Your task to perform on an android device: turn vacation reply on in the gmail app Image 0: 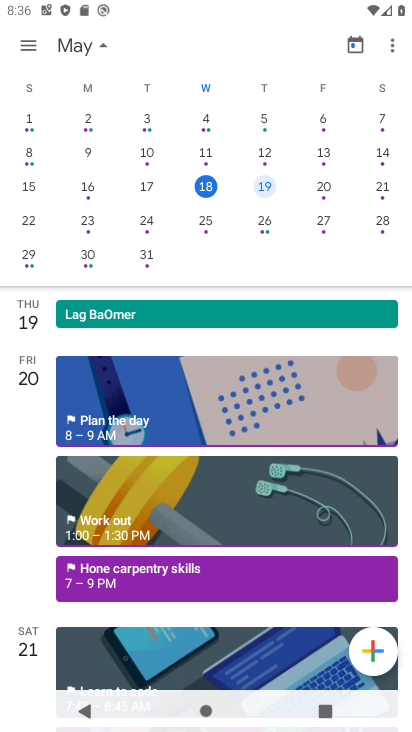
Step 0: press home button
Your task to perform on an android device: turn vacation reply on in the gmail app Image 1: 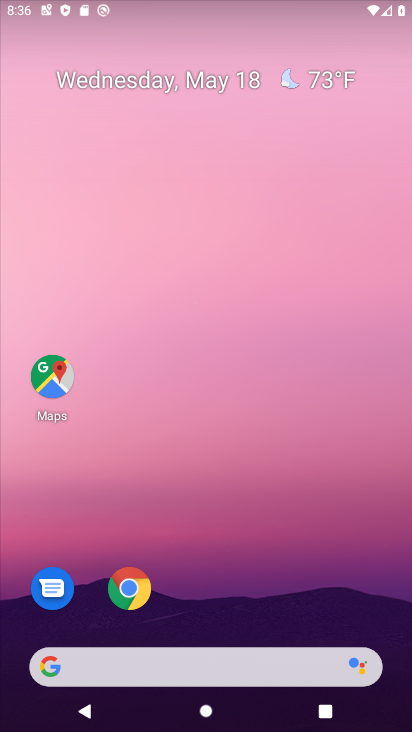
Step 1: drag from (382, 588) to (355, 200)
Your task to perform on an android device: turn vacation reply on in the gmail app Image 2: 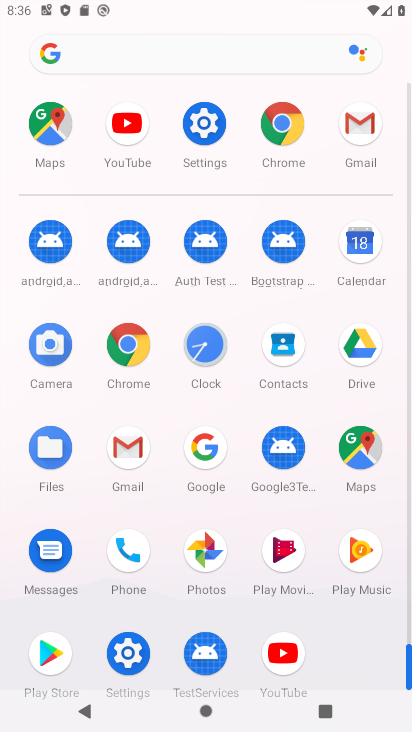
Step 2: click (125, 447)
Your task to perform on an android device: turn vacation reply on in the gmail app Image 3: 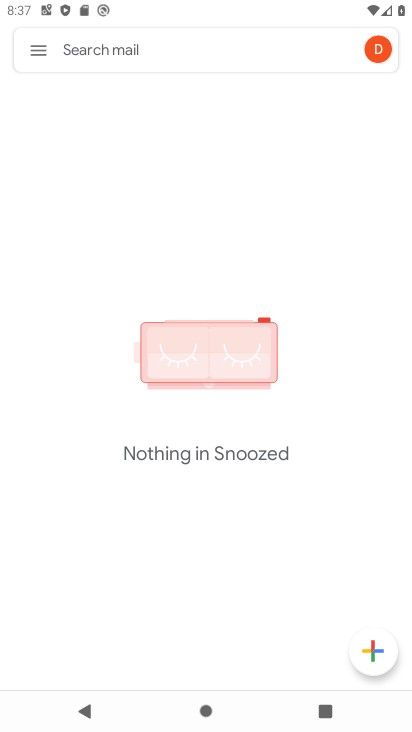
Step 3: click (29, 49)
Your task to perform on an android device: turn vacation reply on in the gmail app Image 4: 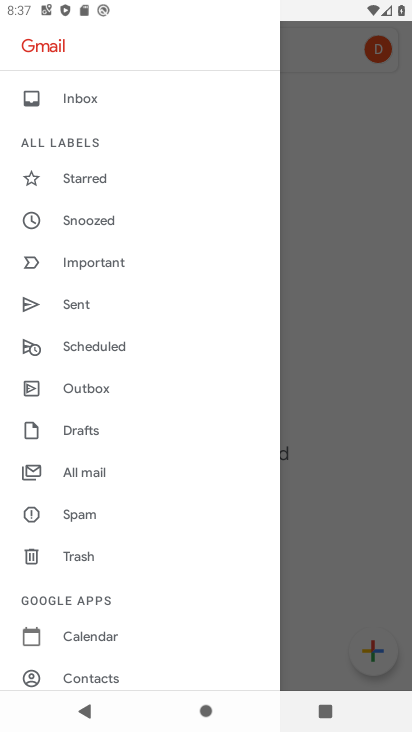
Step 4: drag from (150, 597) to (156, 248)
Your task to perform on an android device: turn vacation reply on in the gmail app Image 5: 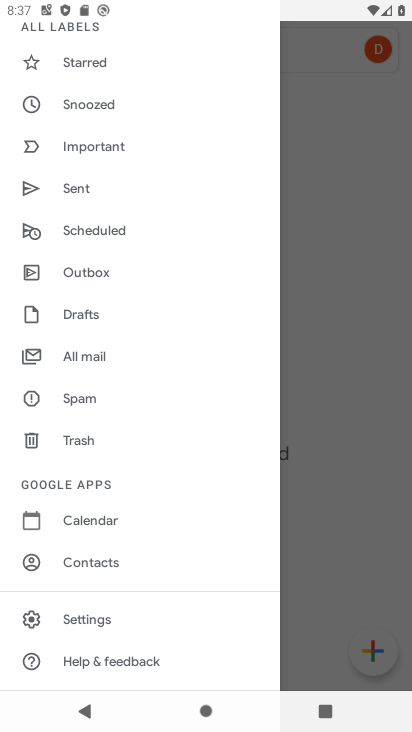
Step 5: click (112, 609)
Your task to perform on an android device: turn vacation reply on in the gmail app Image 6: 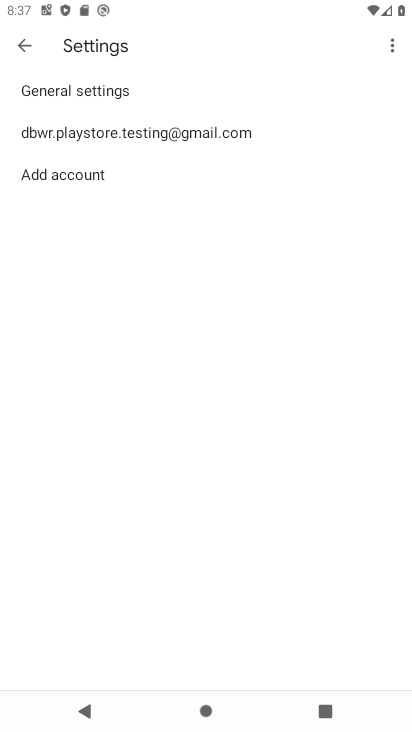
Step 6: click (234, 140)
Your task to perform on an android device: turn vacation reply on in the gmail app Image 7: 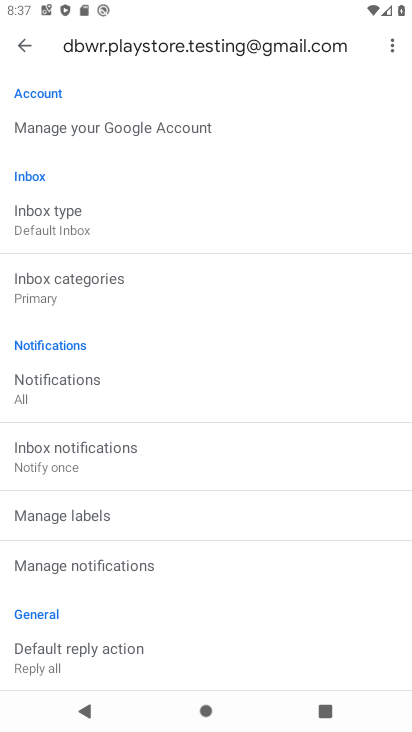
Step 7: drag from (266, 607) to (295, 313)
Your task to perform on an android device: turn vacation reply on in the gmail app Image 8: 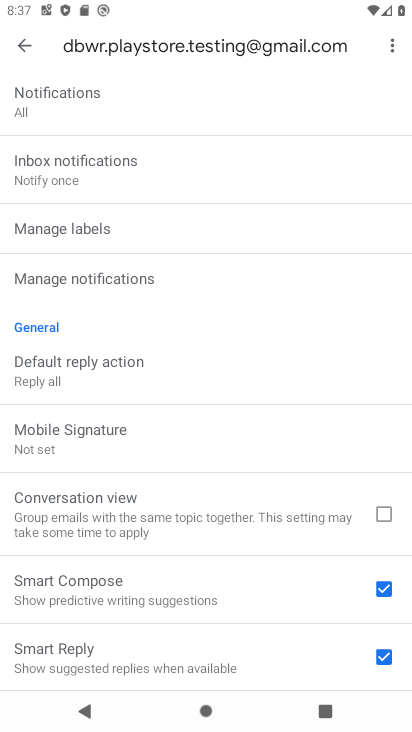
Step 8: drag from (264, 577) to (304, 228)
Your task to perform on an android device: turn vacation reply on in the gmail app Image 9: 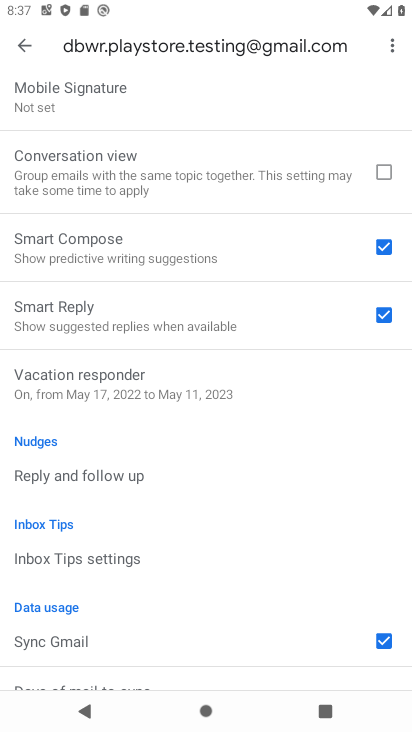
Step 9: drag from (223, 635) to (257, 325)
Your task to perform on an android device: turn vacation reply on in the gmail app Image 10: 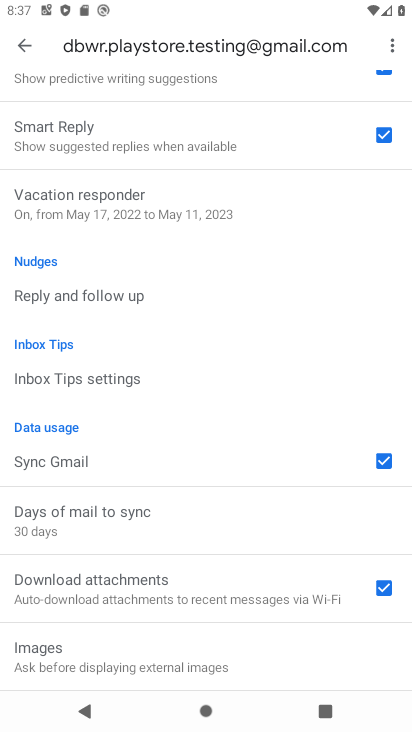
Step 10: drag from (192, 600) to (247, 259)
Your task to perform on an android device: turn vacation reply on in the gmail app Image 11: 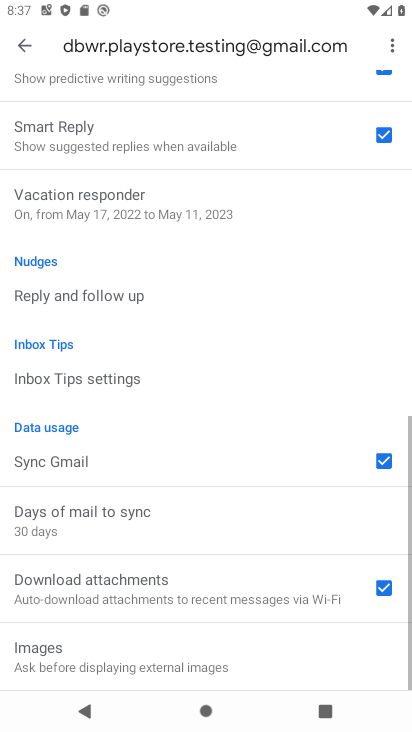
Step 11: click (189, 197)
Your task to perform on an android device: turn vacation reply on in the gmail app Image 12: 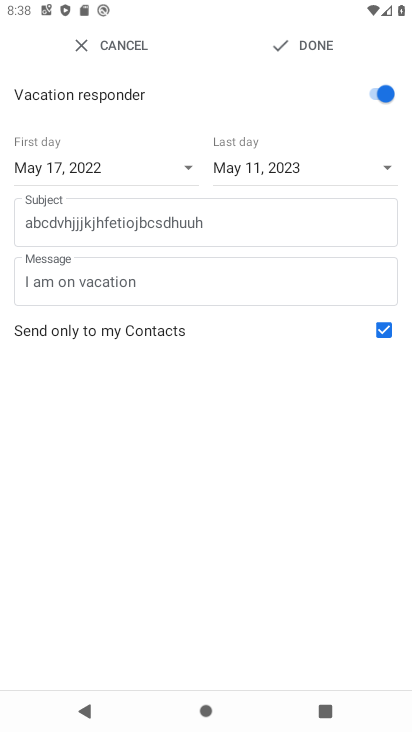
Step 12: task complete